Your task to perform on an android device: Open privacy settings Image 0: 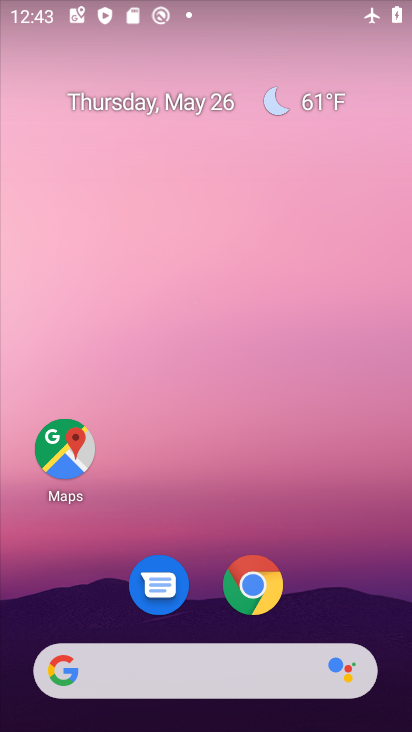
Step 0: drag from (354, 554) to (341, 48)
Your task to perform on an android device: Open privacy settings Image 1: 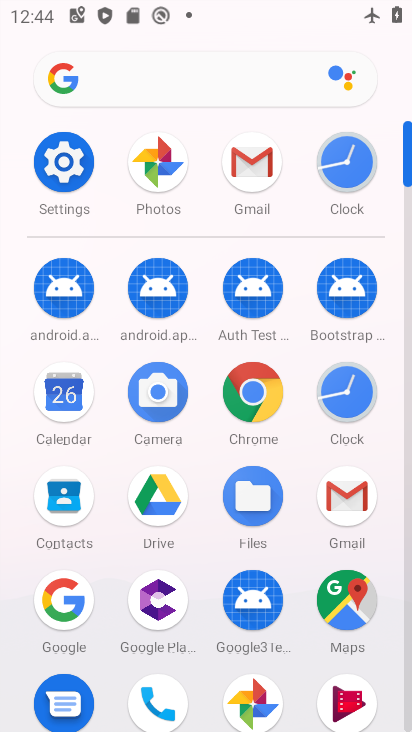
Step 1: click (78, 166)
Your task to perform on an android device: Open privacy settings Image 2: 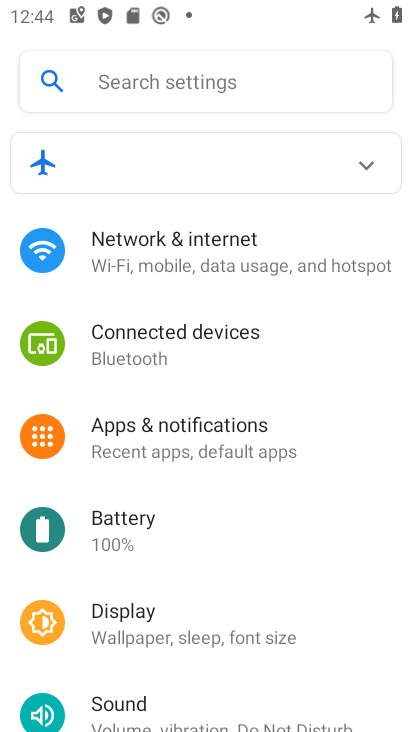
Step 2: drag from (218, 574) to (216, 139)
Your task to perform on an android device: Open privacy settings Image 3: 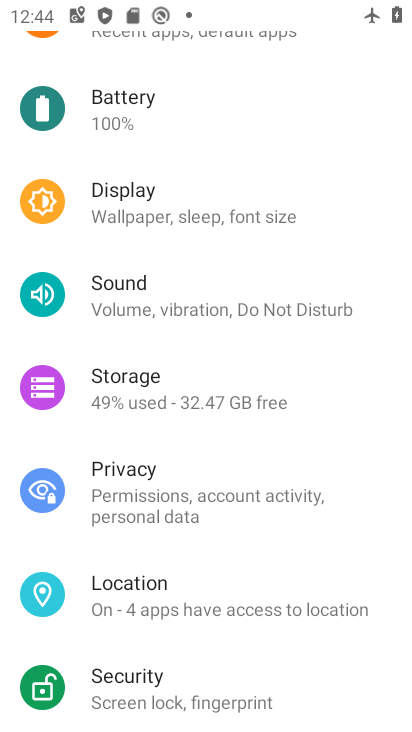
Step 3: click (192, 480)
Your task to perform on an android device: Open privacy settings Image 4: 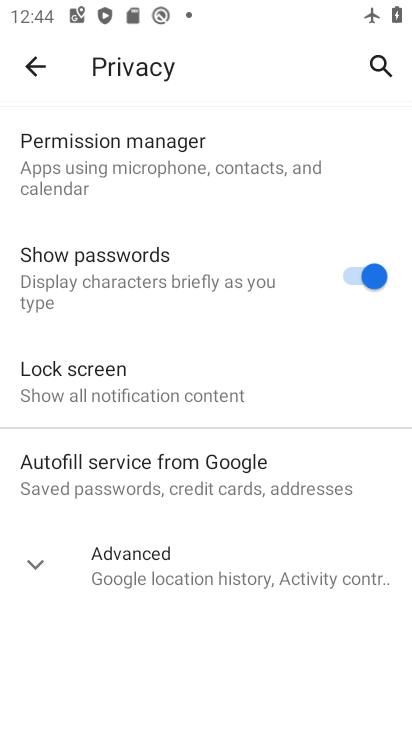
Step 4: task complete